Your task to perform on an android device: Open Google Maps and go to "Timeline" Image 0: 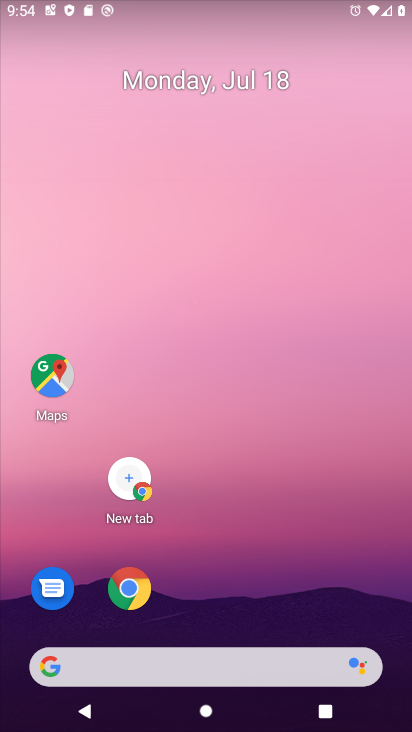
Step 0: click (30, 376)
Your task to perform on an android device: Open Google Maps and go to "Timeline" Image 1: 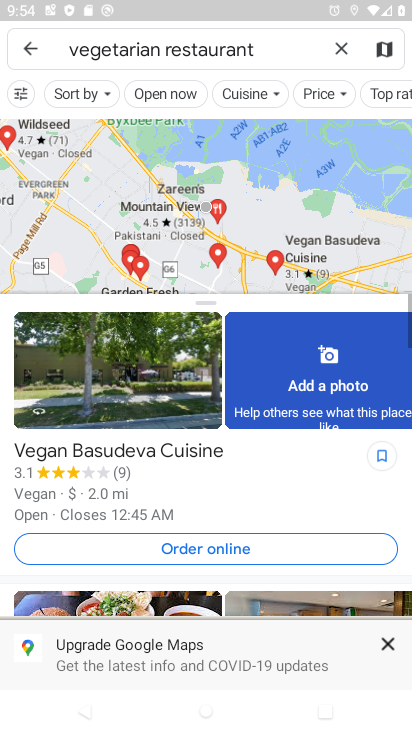
Step 1: click (36, 43)
Your task to perform on an android device: Open Google Maps and go to "Timeline" Image 2: 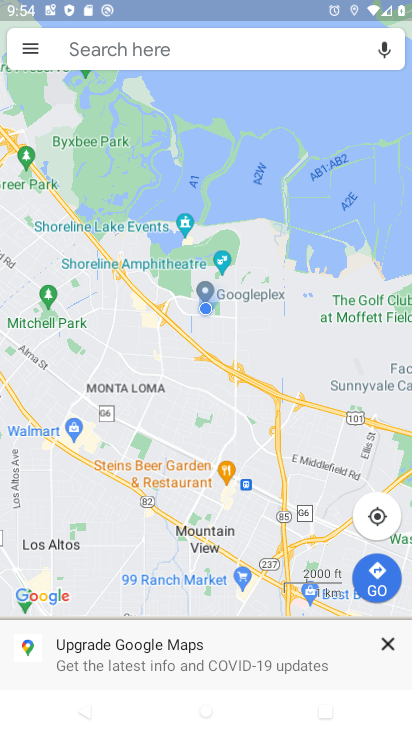
Step 2: click (36, 43)
Your task to perform on an android device: Open Google Maps and go to "Timeline" Image 3: 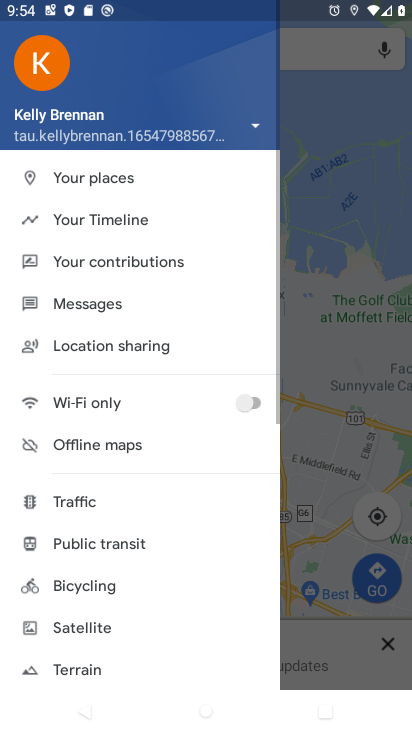
Step 3: click (125, 212)
Your task to perform on an android device: Open Google Maps and go to "Timeline" Image 4: 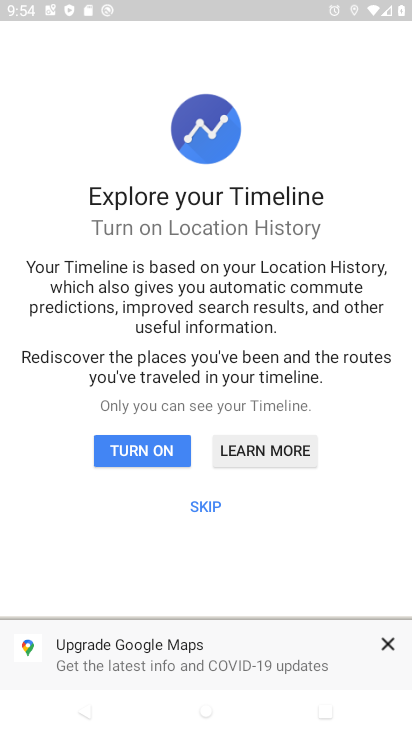
Step 4: click (139, 461)
Your task to perform on an android device: Open Google Maps and go to "Timeline" Image 5: 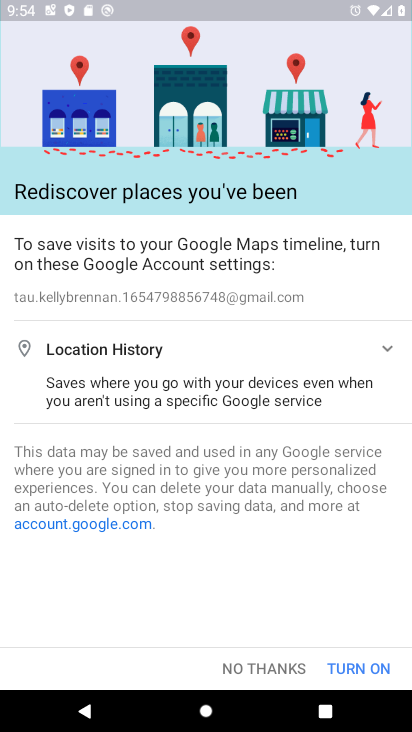
Step 5: click (355, 674)
Your task to perform on an android device: Open Google Maps and go to "Timeline" Image 6: 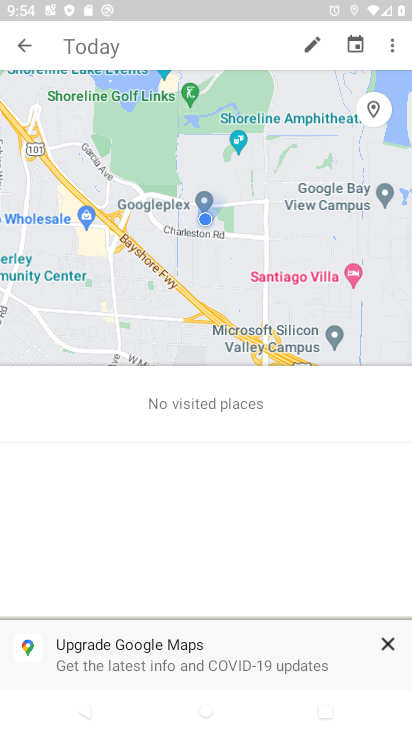
Step 6: task complete